Your task to perform on an android device: change the clock display to show seconds Image 0: 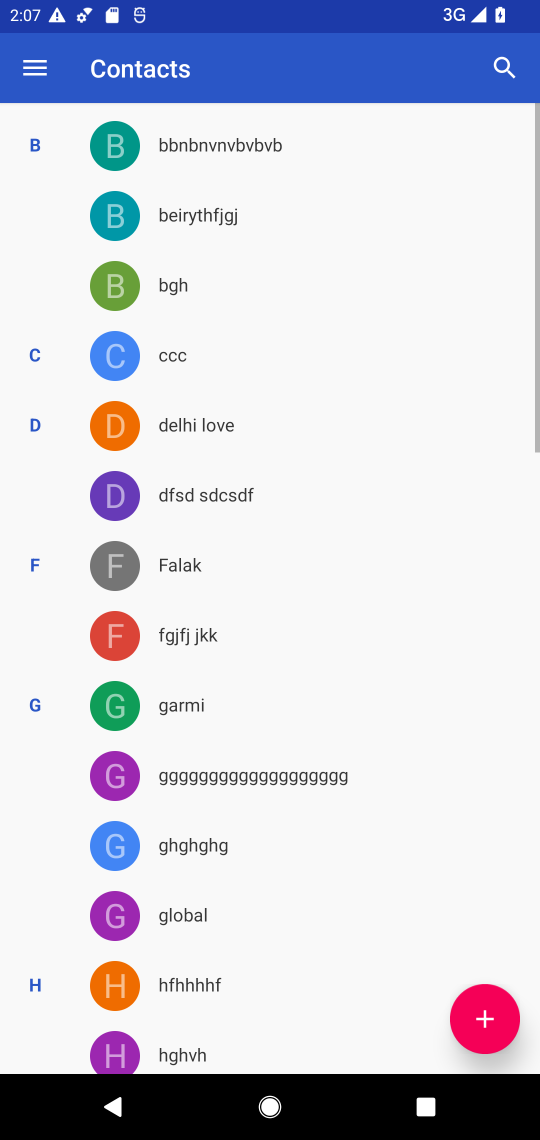
Step 0: press home button
Your task to perform on an android device: change the clock display to show seconds Image 1: 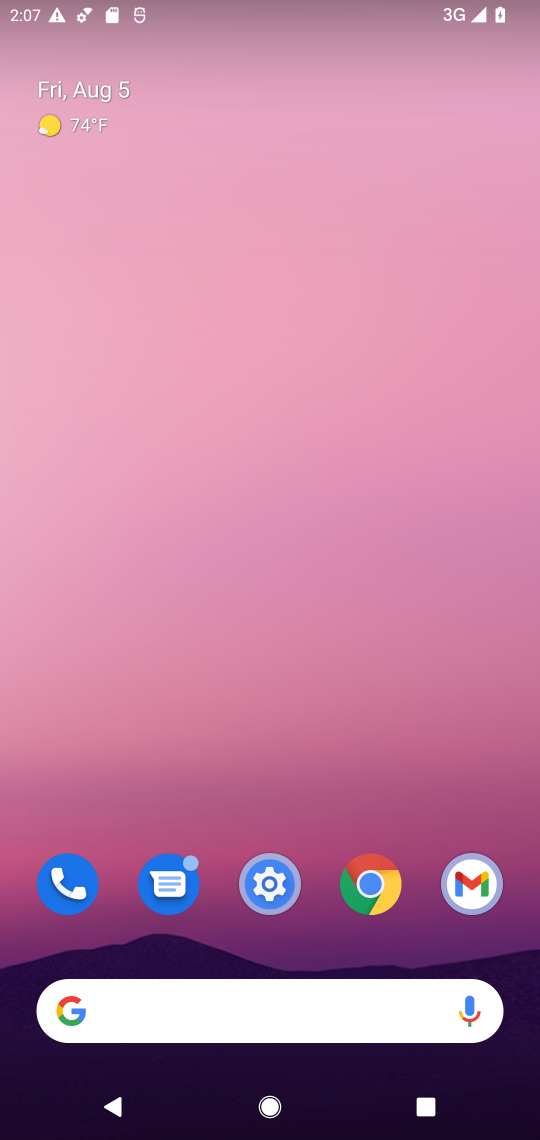
Step 1: drag from (448, 1015) to (395, 3)
Your task to perform on an android device: change the clock display to show seconds Image 2: 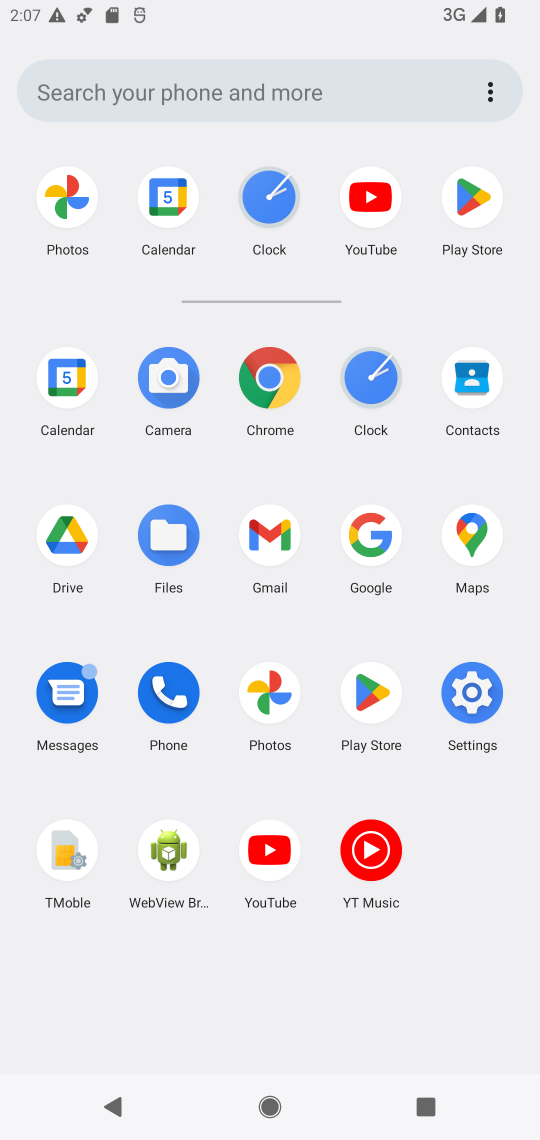
Step 2: click (377, 373)
Your task to perform on an android device: change the clock display to show seconds Image 3: 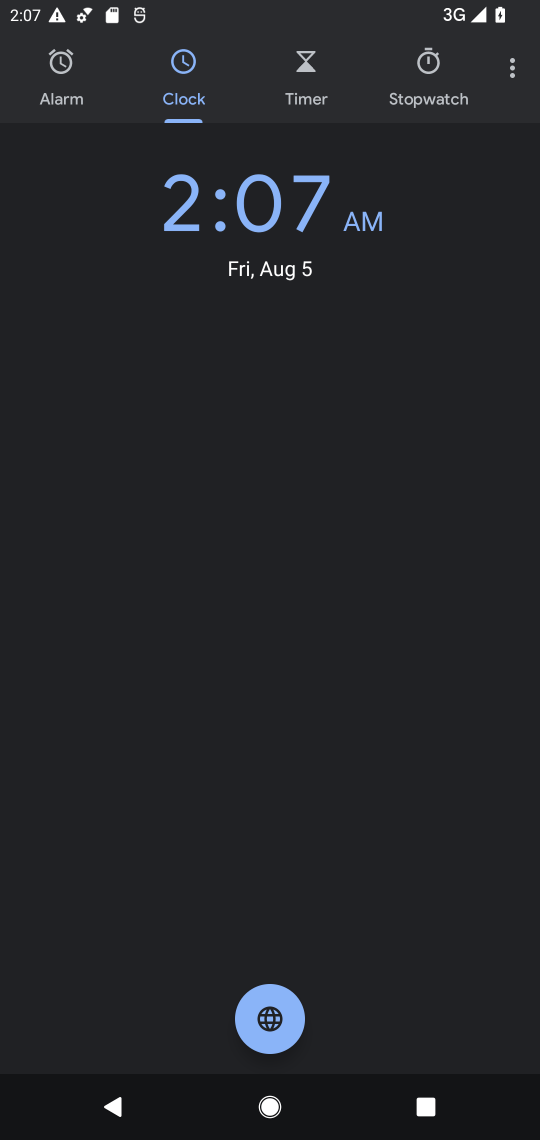
Step 3: click (515, 55)
Your task to perform on an android device: change the clock display to show seconds Image 4: 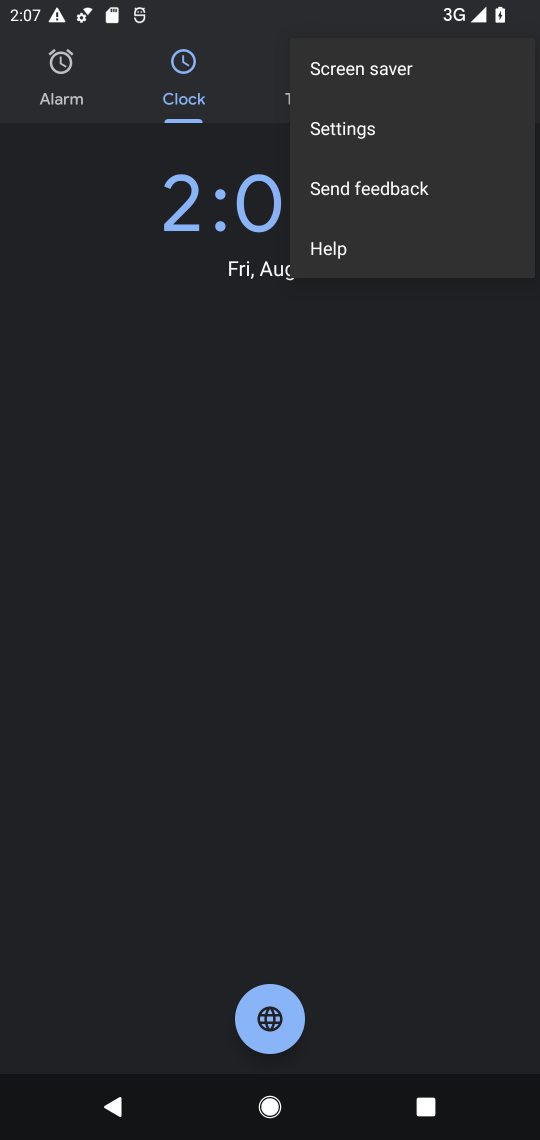
Step 4: click (407, 129)
Your task to perform on an android device: change the clock display to show seconds Image 5: 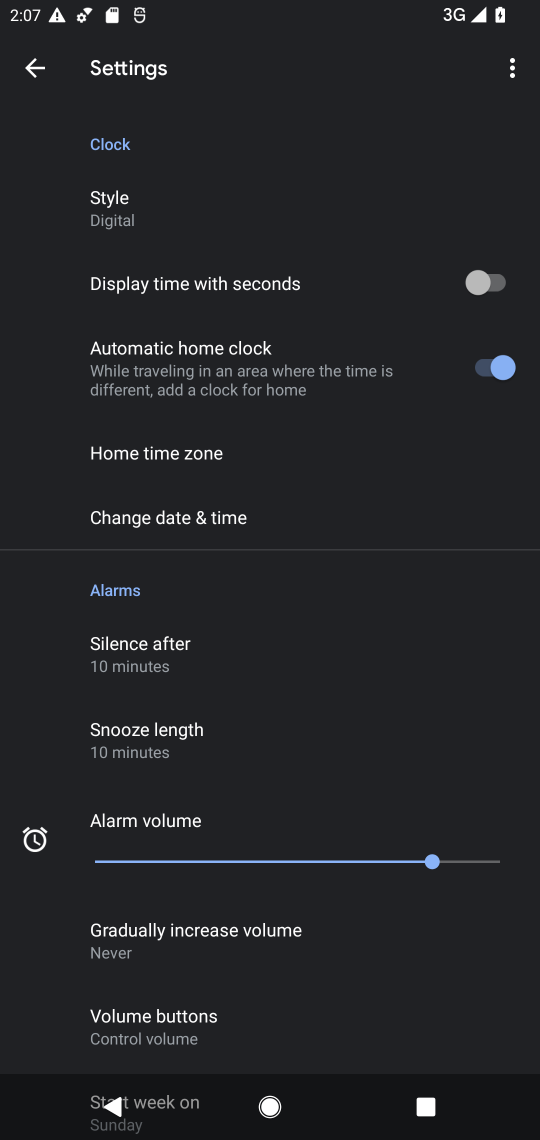
Step 5: click (479, 271)
Your task to perform on an android device: change the clock display to show seconds Image 6: 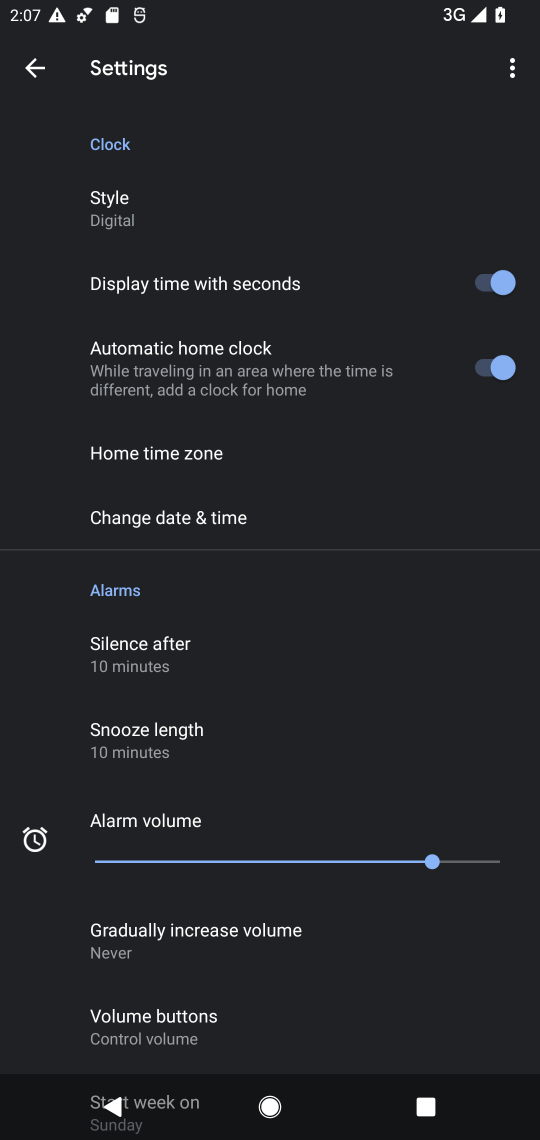
Step 6: task complete